Your task to perform on an android device: Play the last video I watched on Youtube Image 0: 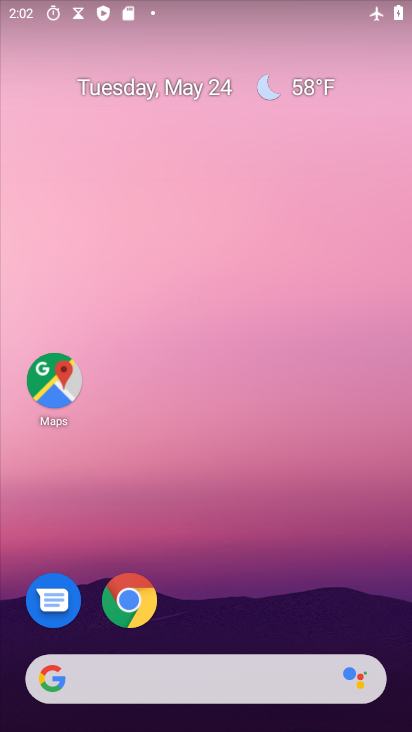
Step 0: drag from (287, 546) to (275, 43)
Your task to perform on an android device: Play the last video I watched on Youtube Image 1: 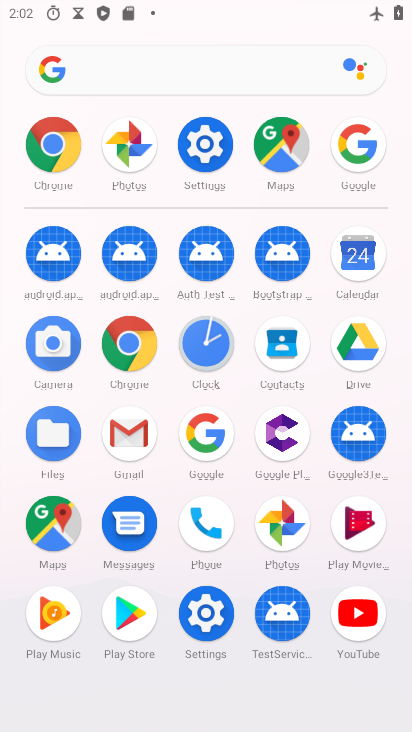
Step 1: click (360, 611)
Your task to perform on an android device: Play the last video I watched on Youtube Image 2: 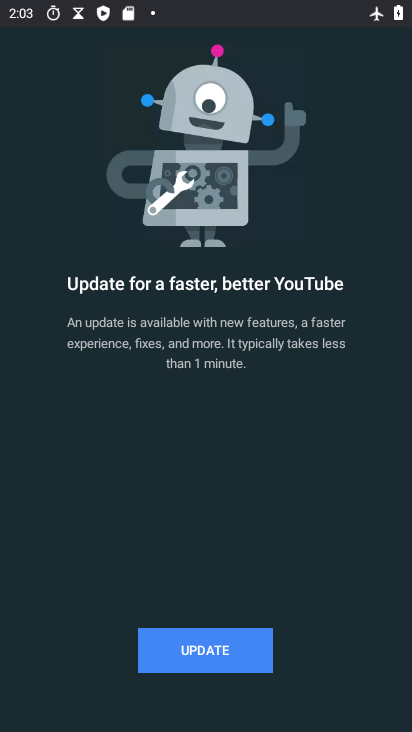
Step 2: click (227, 660)
Your task to perform on an android device: Play the last video I watched on Youtube Image 3: 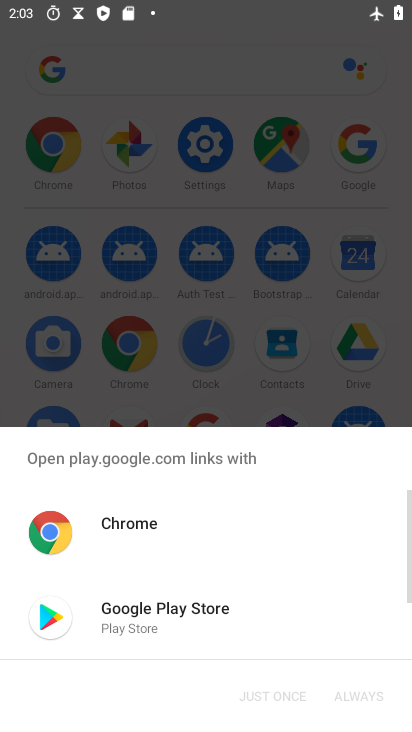
Step 3: click (159, 613)
Your task to perform on an android device: Play the last video I watched on Youtube Image 4: 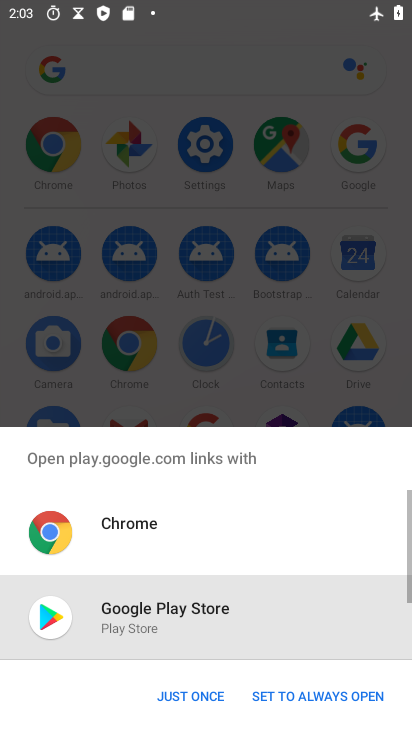
Step 4: click (176, 698)
Your task to perform on an android device: Play the last video I watched on Youtube Image 5: 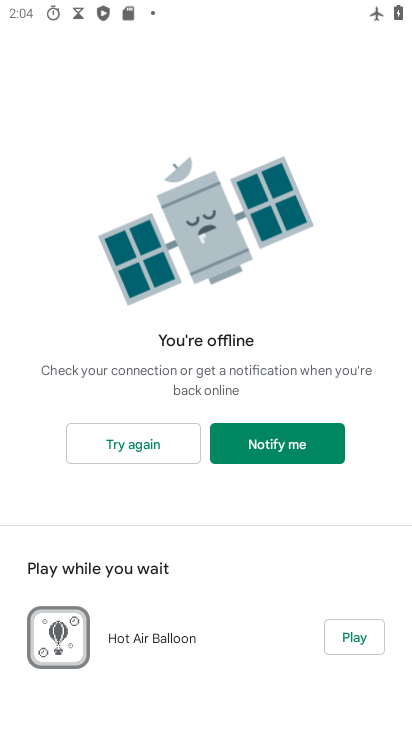
Step 5: task complete